Your task to perform on an android device: Search for "razer blade" on costco, select the first entry, add it to the cart, then select checkout. Image 0: 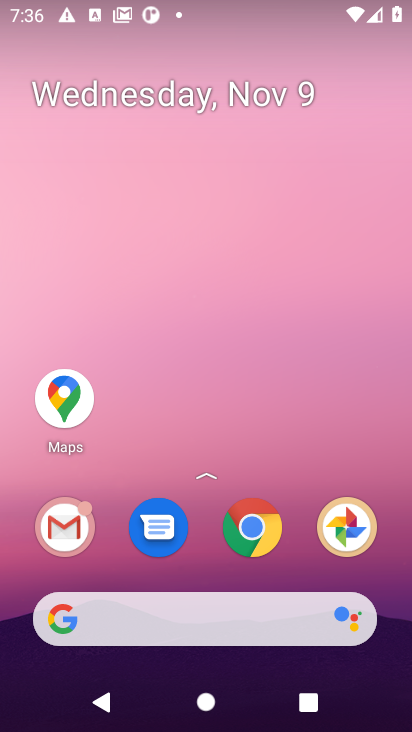
Step 0: click (249, 529)
Your task to perform on an android device: Search for "razer blade" on costco, select the first entry, add it to the cart, then select checkout. Image 1: 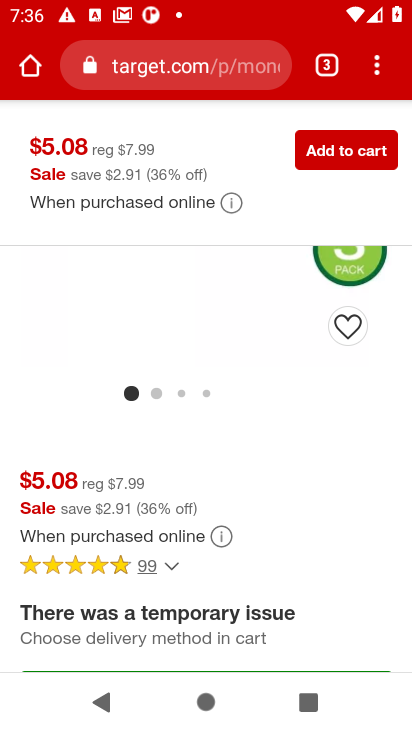
Step 1: click (162, 74)
Your task to perform on an android device: Search for "razer blade" on costco, select the first entry, add it to the cart, then select checkout. Image 2: 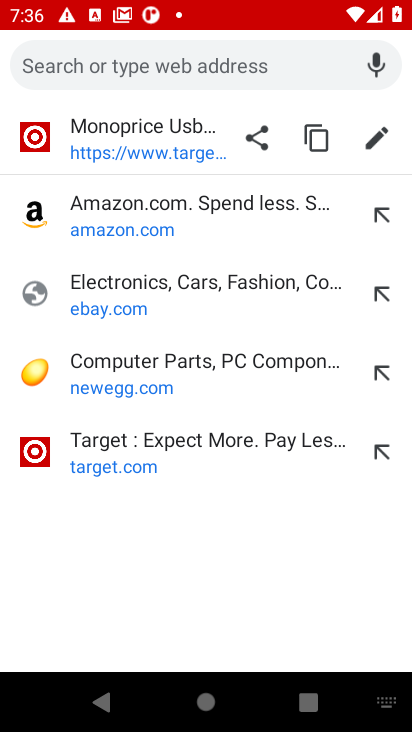
Step 2: type "costco.com"
Your task to perform on an android device: Search for "razer blade" on costco, select the first entry, add it to the cart, then select checkout. Image 3: 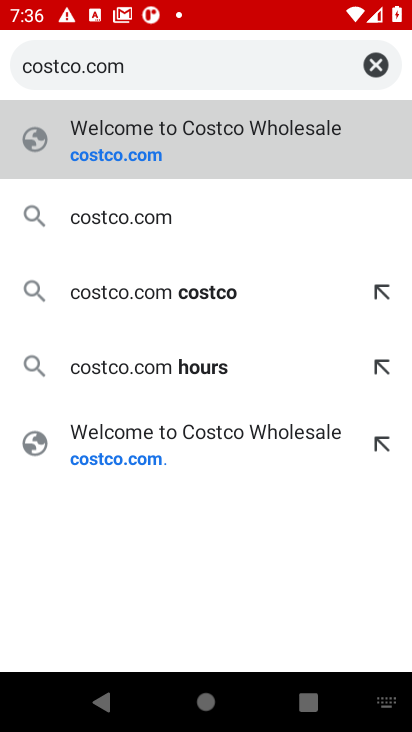
Step 3: click (114, 160)
Your task to perform on an android device: Search for "razer blade" on costco, select the first entry, add it to the cart, then select checkout. Image 4: 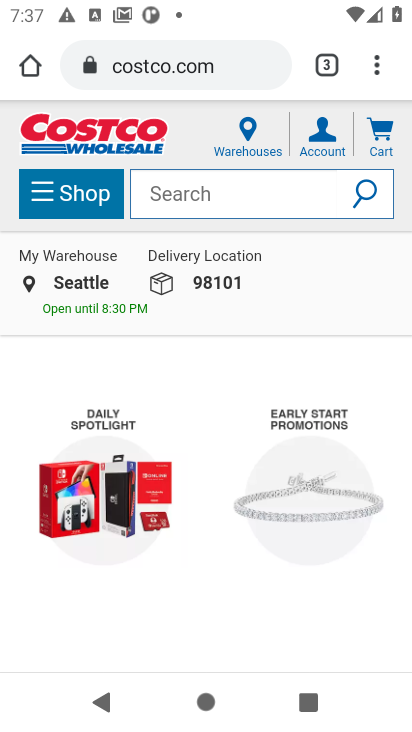
Step 4: click (204, 190)
Your task to perform on an android device: Search for "razer blade" on costco, select the first entry, add it to the cart, then select checkout. Image 5: 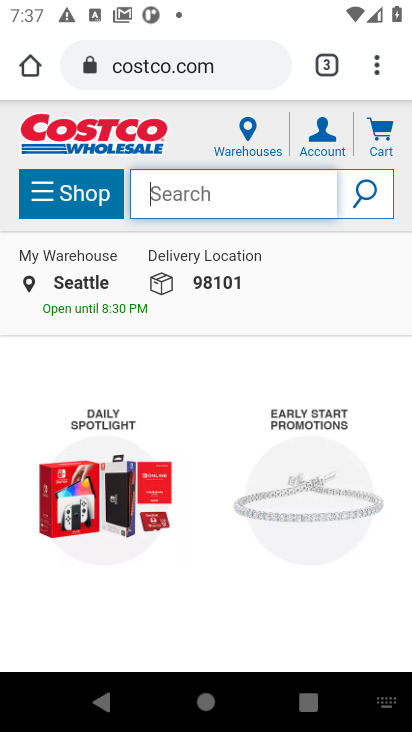
Step 5: type "razer blade"
Your task to perform on an android device: Search for "razer blade" on costco, select the first entry, add it to the cart, then select checkout. Image 6: 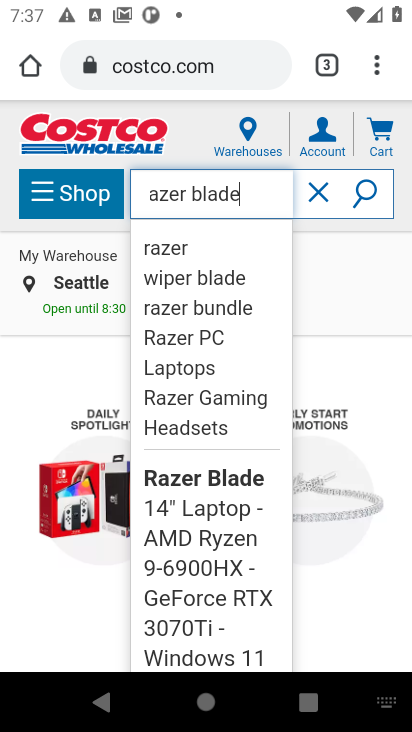
Step 6: click (370, 197)
Your task to perform on an android device: Search for "razer blade" on costco, select the first entry, add it to the cart, then select checkout. Image 7: 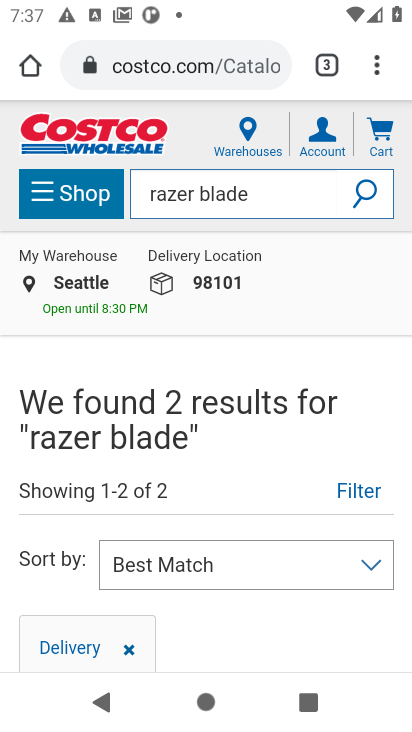
Step 7: drag from (160, 589) to (141, 293)
Your task to perform on an android device: Search for "razer blade" on costco, select the first entry, add it to the cart, then select checkout. Image 8: 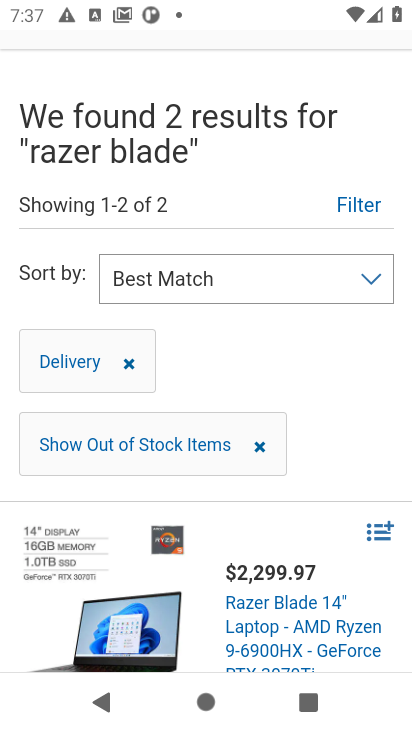
Step 8: drag from (148, 500) to (135, 326)
Your task to perform on an android device: Search for "razer blade" on costco, select the first entry, add it to the cart, then select checkout. Image 9: 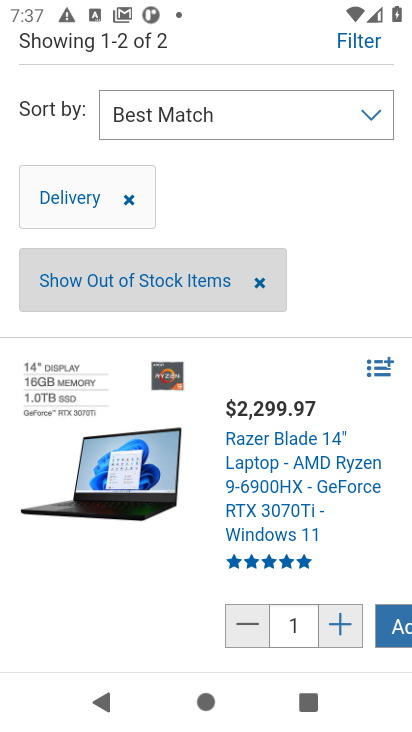
Step 9: click (392, 630)
Your task to perform on an android device: Search for "razer blade" on costco, select the first entry, add it to the cart, then select checkout. Image 10: 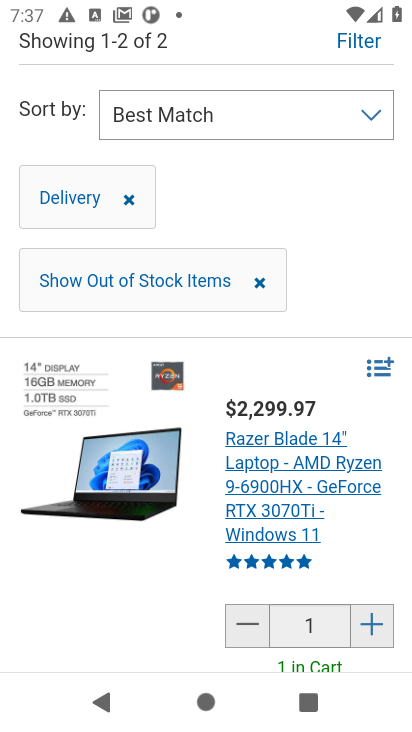
Step 10: drag from (301, 269) to (312, 612)
Your task to perform on an android device: Search for "razer blade" on costco, select the first entry, add it to the cart, then select checkout. Image 11: 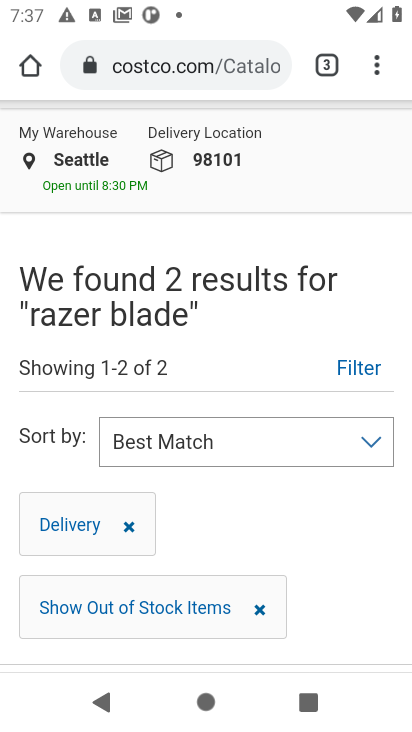
Step 11: drag from (335, 233) to (321, 557)
Your task to perform on an android device: Search for "razer blade" on costco, select the first entry, add it to the cart, then select checkout. Image 12: 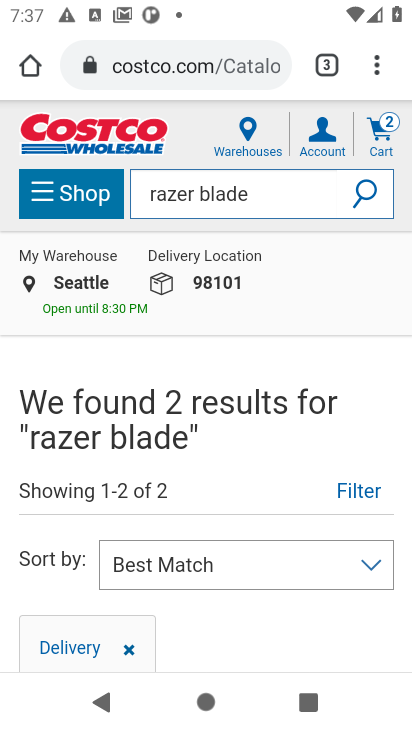
Step 12: click (381, 135)
Your task to perform on an android device: Search for "razer blade" on costco, select the first entry, add it to the cart, then select checkout. Image 13: 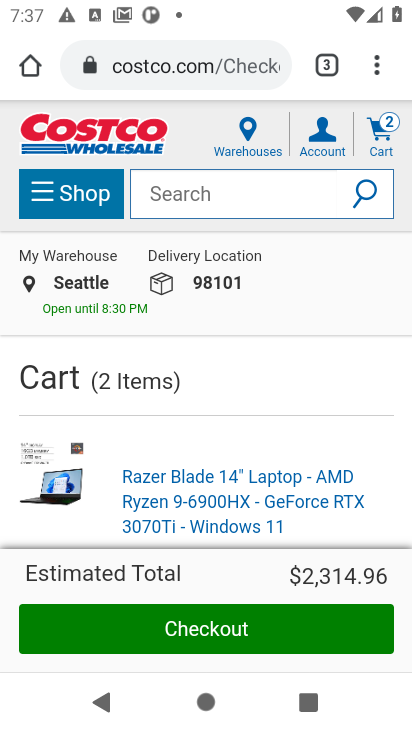
Step 13: click (198, 629)
Your task to perform on an android device: Search for "razer blade" on costco, select the first entry, add it to the cart, then select checkout. Image 14: 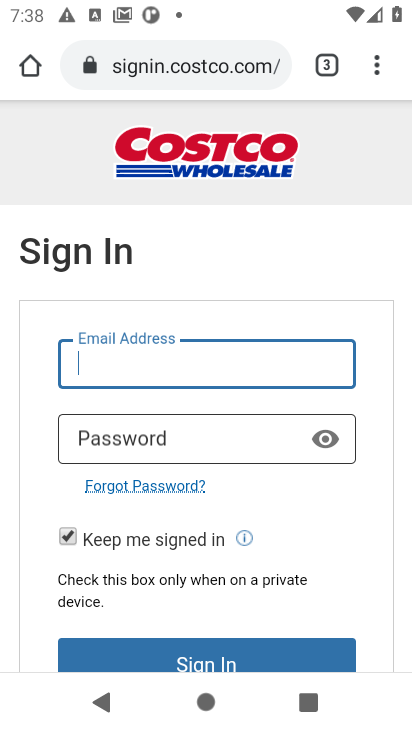
Step 14: task complete